Your task to perform on an android device: turn on the 12-hour format for clock Image 0: 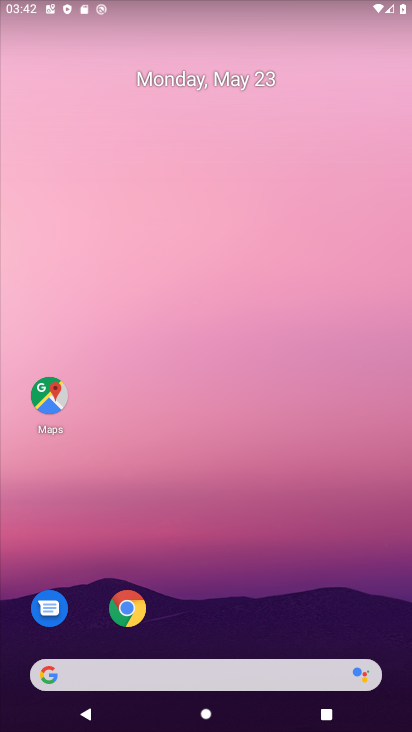
Step 0: drag from (270, 607) to (224, 144)
Your task to perform on an android device: turn on the 12-hour format for clock Image 1: 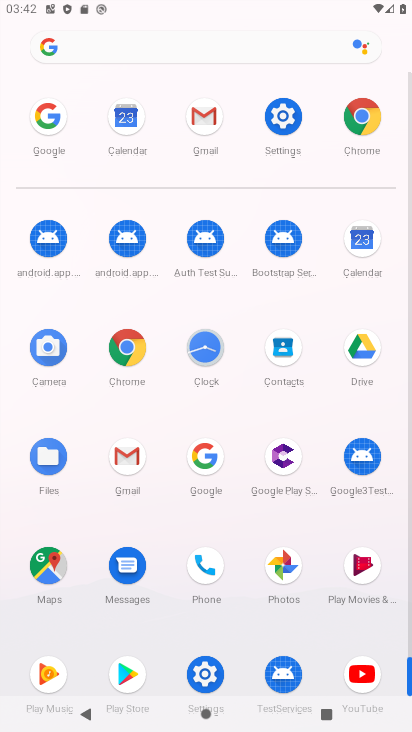
Step 1: click (206, 347)
Your task to perform on an android device: turn on the 12-hour format for clock Image 2: 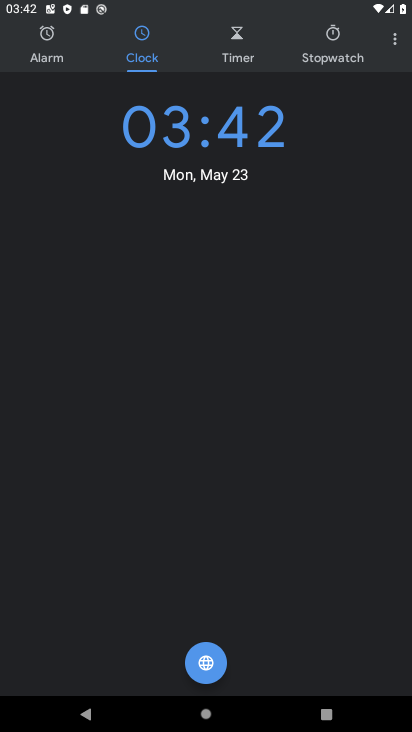
Step 2: click (398, 36)
Your task to perform on an android device: turn on the 12-hour format for clock Image 3: 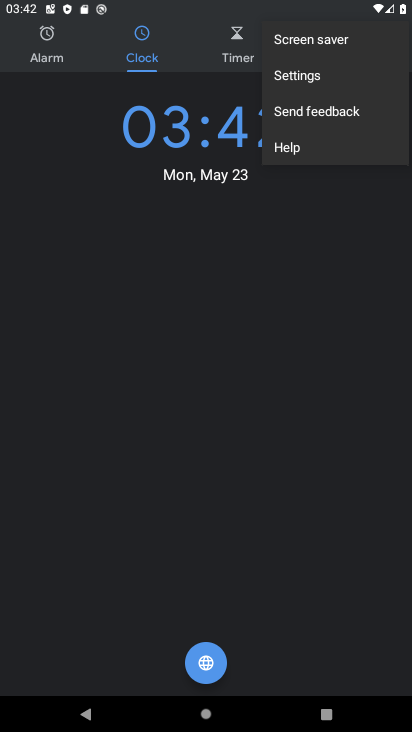
Step 3: click (313, 74)
Your task to perform on an android device: turn on the 12-hour format for clock Image 4: 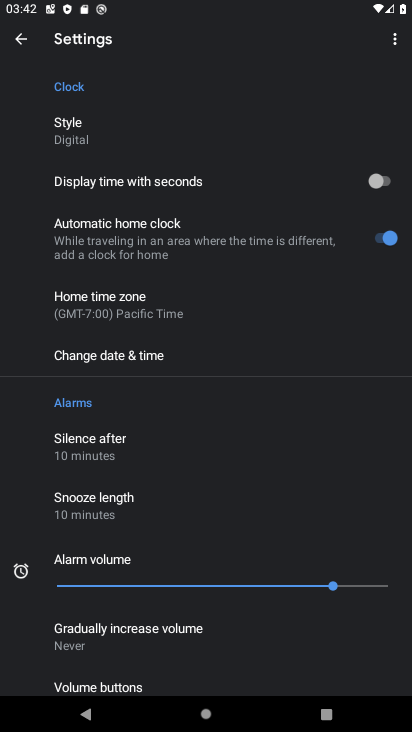
Step 4: click (148, 352)
Your task to perform on an android device: turn on the 12-hour format for clock Image 5: 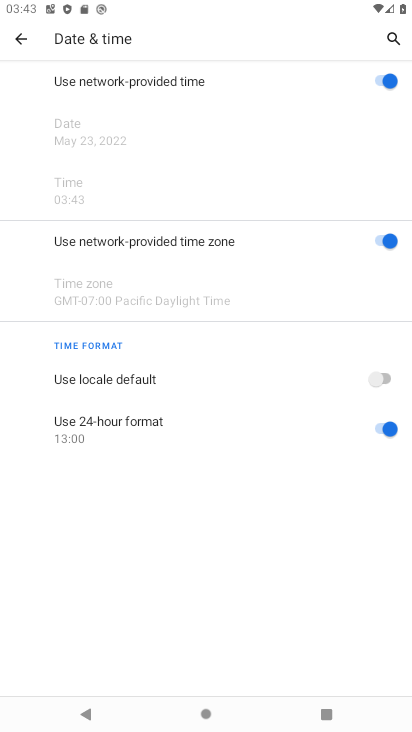
Step 5: click (394, 431)
Your task to perform on an android device: turn on the 12-hour format for clock Image 6: 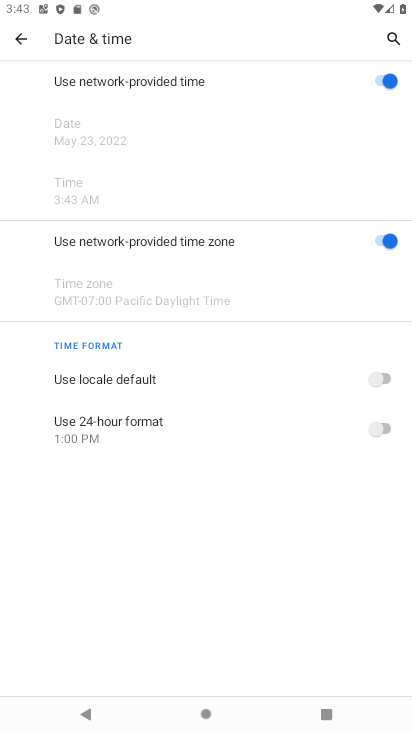
Step 6: click (376, 382)
Your task to perform on an android device: turn on the 12-hour format for clock Image 7: 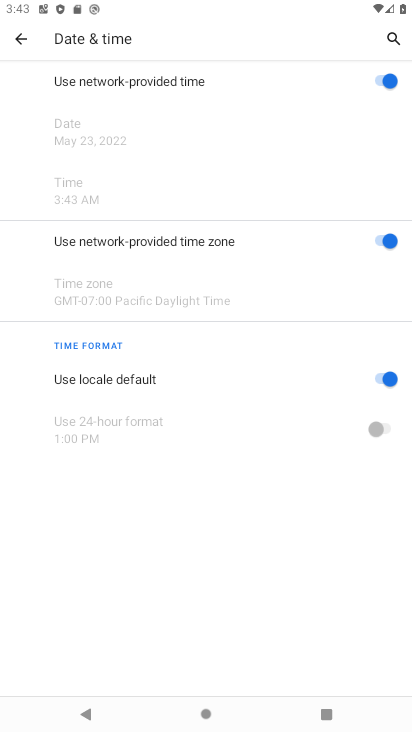
Step 7: task complete